Your task to perform on an android device: set the timer Image 0: 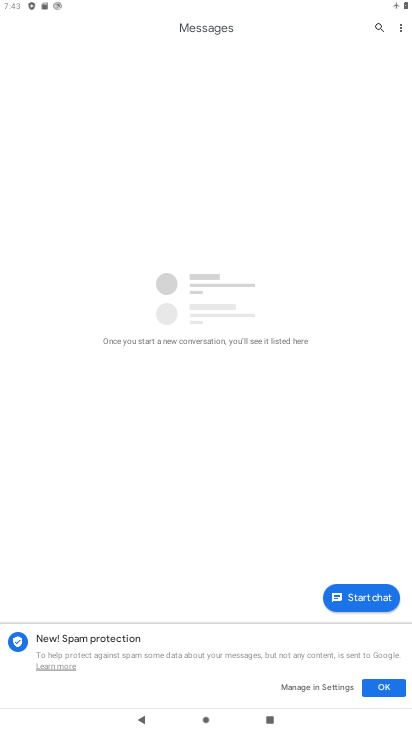
Step 0: press home button
Your task to perform on an android device: set the timer Image 1: 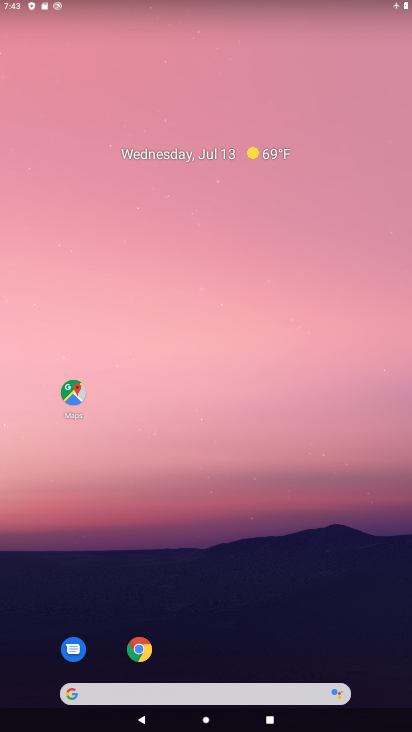
Step 1: drag from (168, 680) to (162, 440)
Your task to perform on an android device: set the timer Image 2: 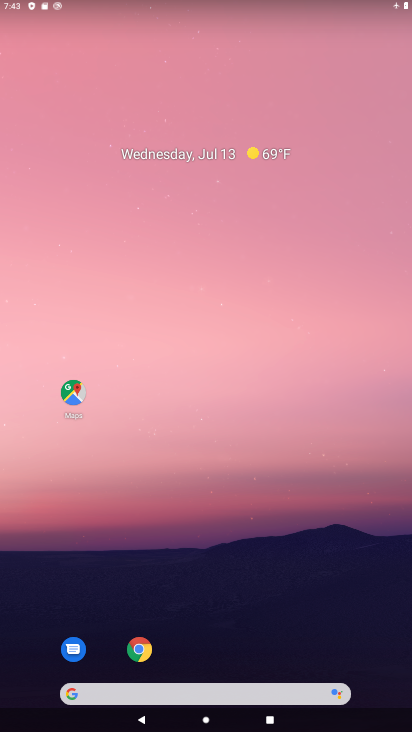
Step 2: drag from (187, 672) to (214, 337)
Your task to perform on an android device: set the timer Image 3: 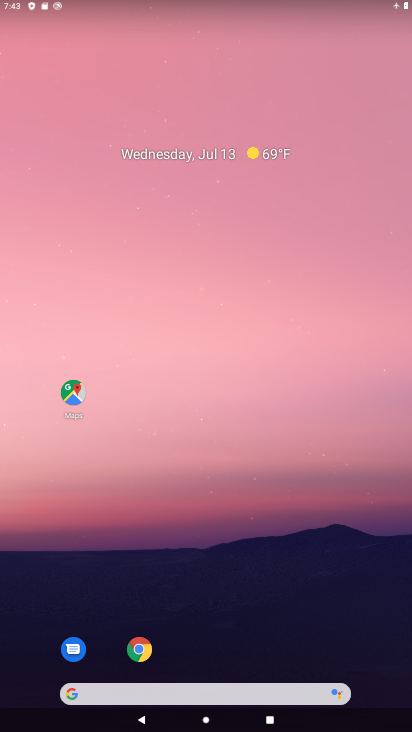
Step 3: drag from (156, 691) to (151, 263)
Your task to perform on an android device: set the timer Image 4: 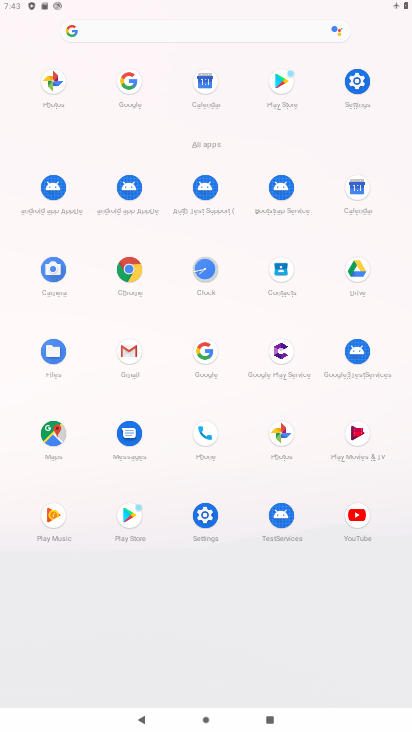
Step 4: click (205, 262)
Your task to perform on an android device: set the timer Image 5: 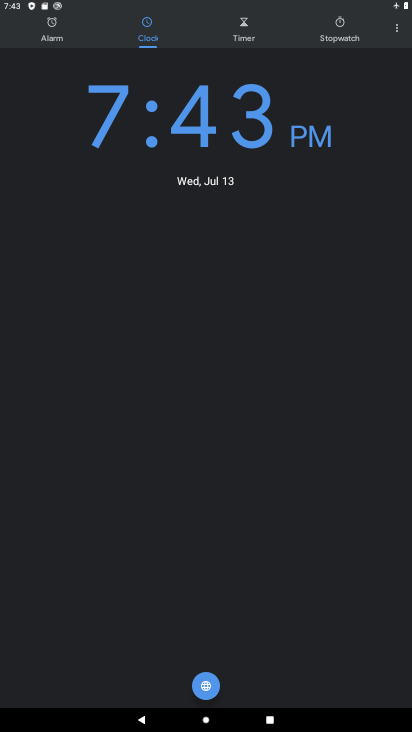
Step 5: click (238, 36)
Your task to perform on an android device: set the timer Image 6: 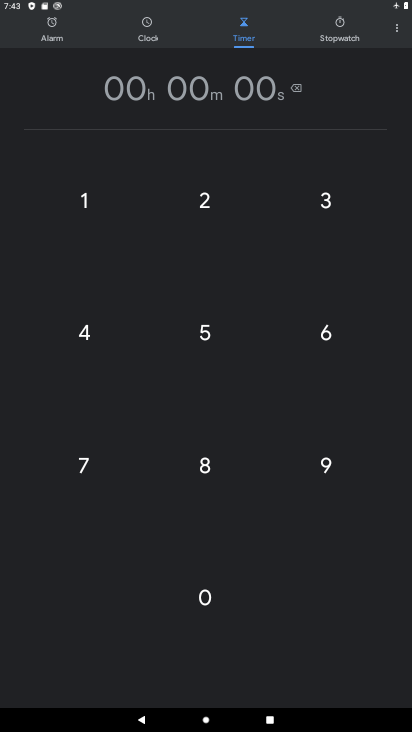
Step 6: click (210, 598)
Your task to perform on an android device: set the timer Image 7: 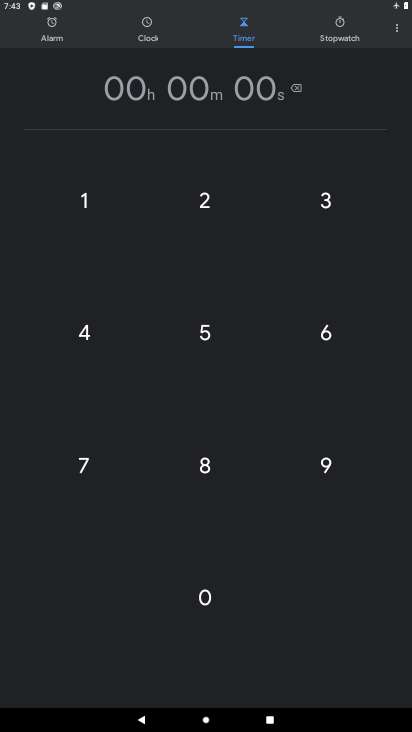
Step 7: click (206, 601)
Your task to perform on an android device: set the timer Image 8: 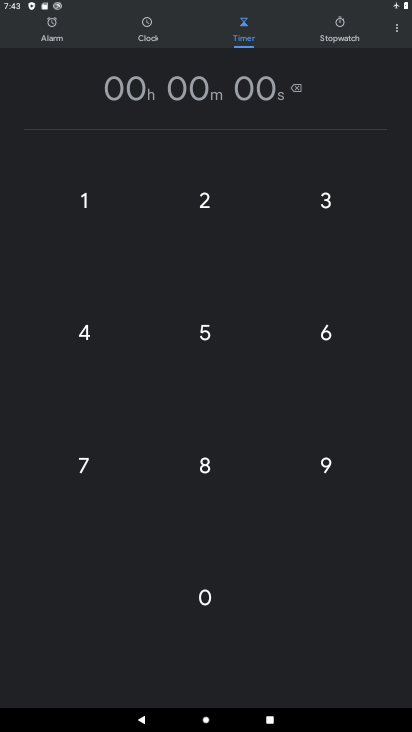
Step 8: click (204, 599)
Your task to perform on an android device: set the timer Image 9: 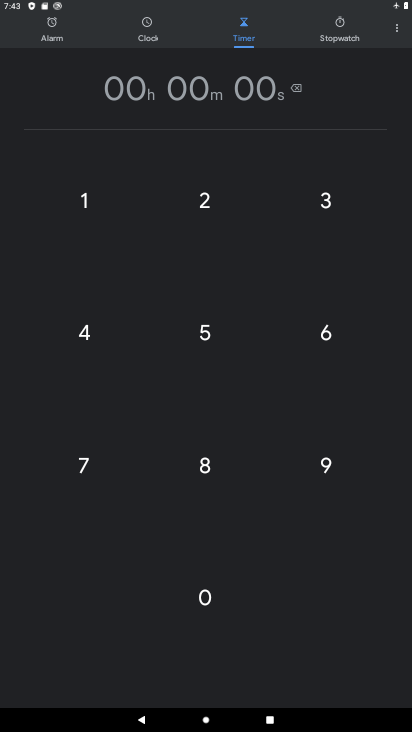
Step 9: click (204, 599)
Your task to perform on an android device: set the timer Image 10: 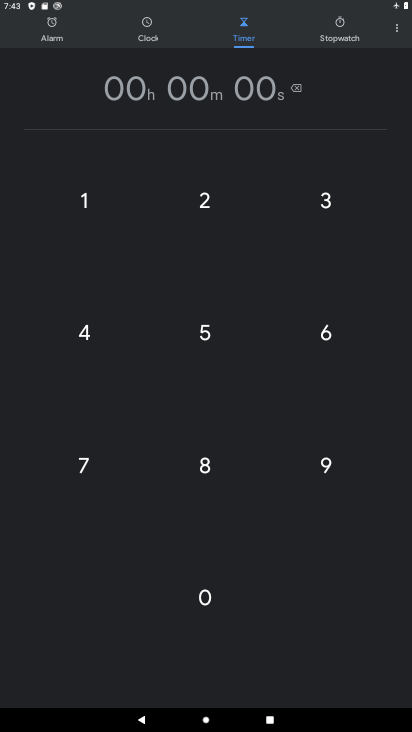
Step 10: click (84, 209)
Your task to perform on an android device: set the timer Image 11: 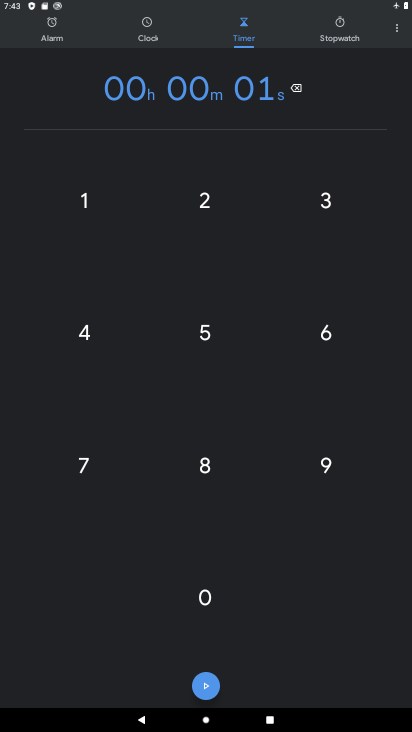
Step 11: click (207, 594)
Your task to perform on an android device: set the timer Image 12: 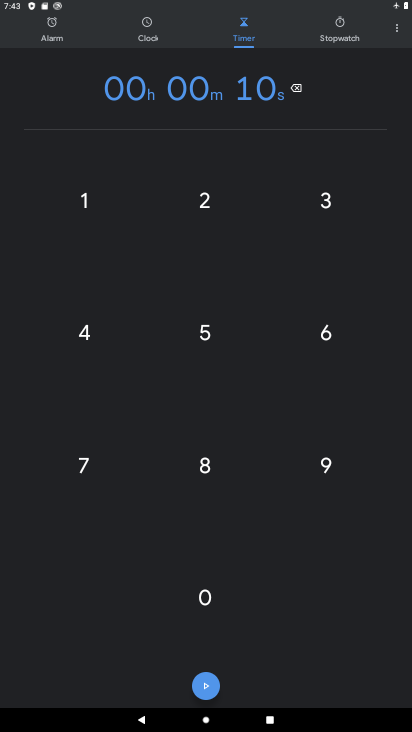
Step 12: click (201, 204)
Your task to perform on an android device: set the timer Image 13: 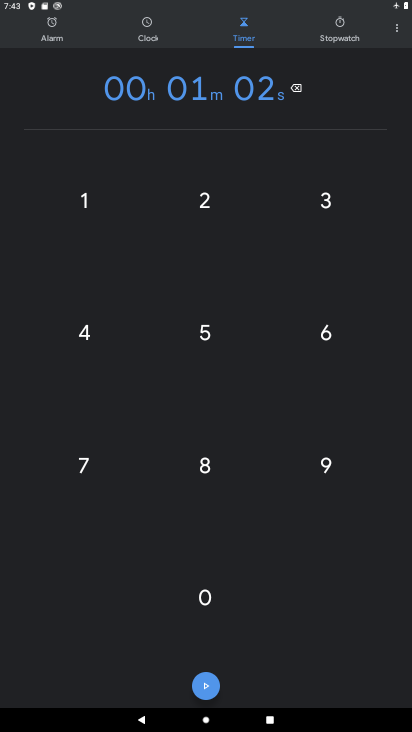
Step 13: click (205, 601)
Your task to perform on an android device: set the timer Image 14: 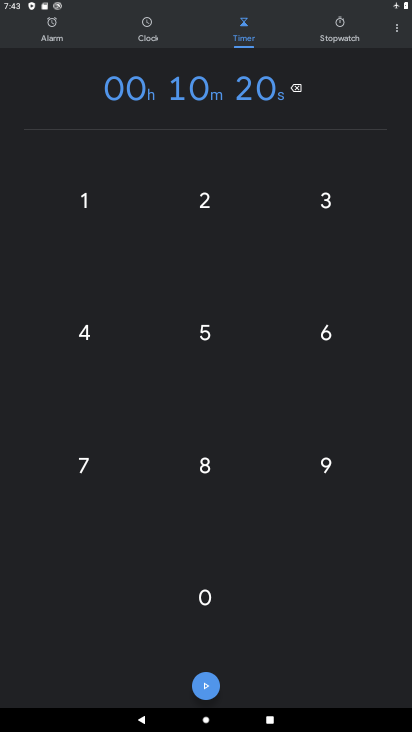
Step 14: click (205, 601)
Your task to perform on an android device: set the timer Image 15: 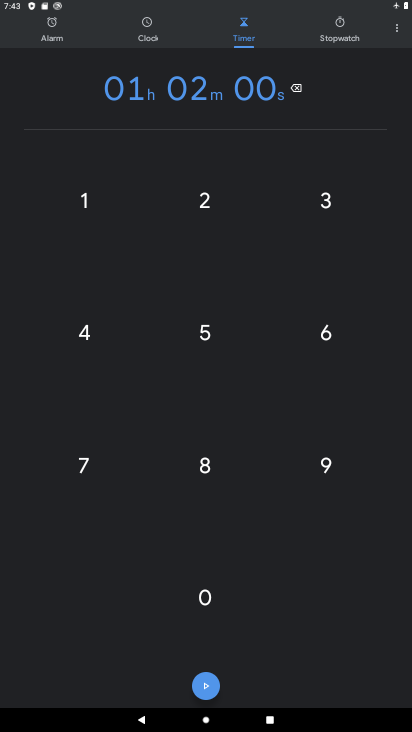
Step 15: click (198, 684)
Your task to perform on an android device: set the timer Image 16: 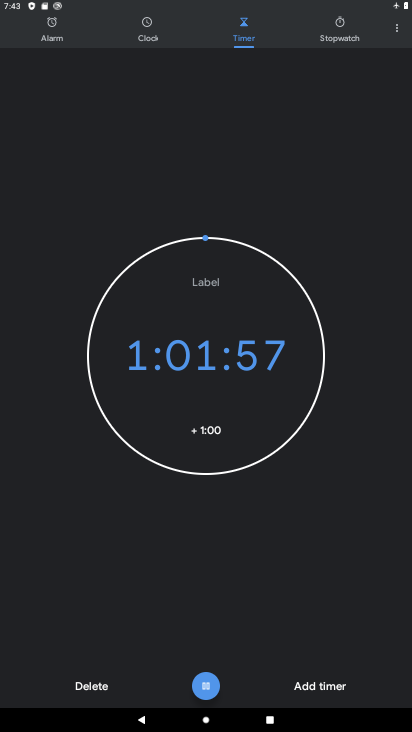
Step 16: task complete